Your task to perform on an android device: Open Chrome and go to settings Image 0: 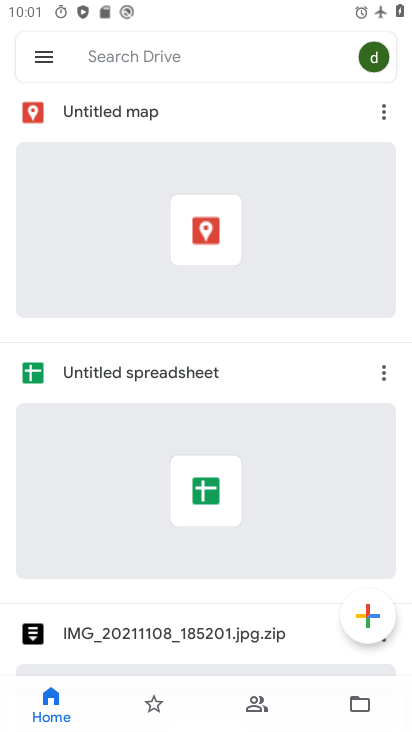
Step 0: press back button
Your task to perform on an android device: Open Chrome and go to settings Image 1: 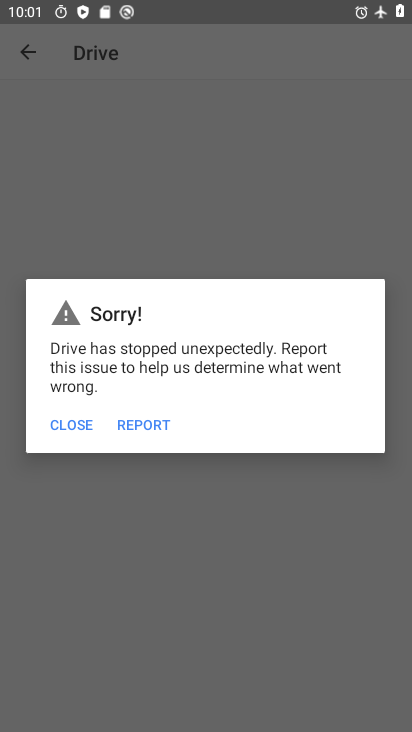
Step 1: press home button
Your task to perform on an android device: Open Chrome and go to settings Image 2: 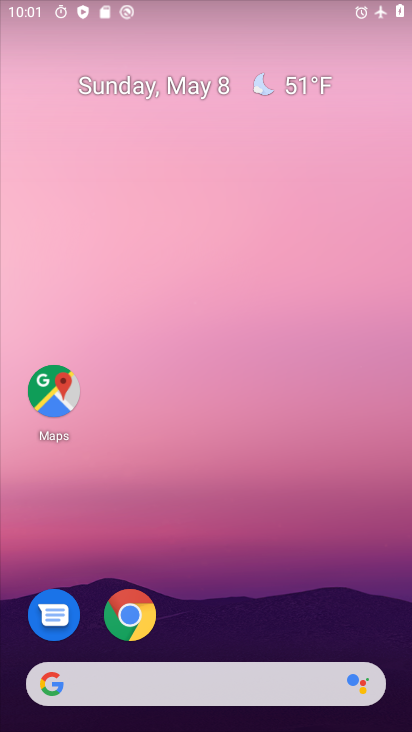
Step 2: click (142, 610)
Your task to perform on an android device: Open Chrome and go to settings Image 3: 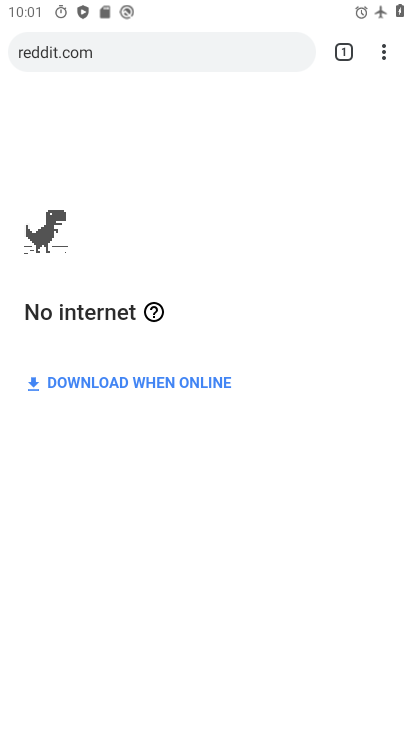
Step 3: click (377, 57)
Your task to perform on an android device: Open Chrome and go to settings Image 4: 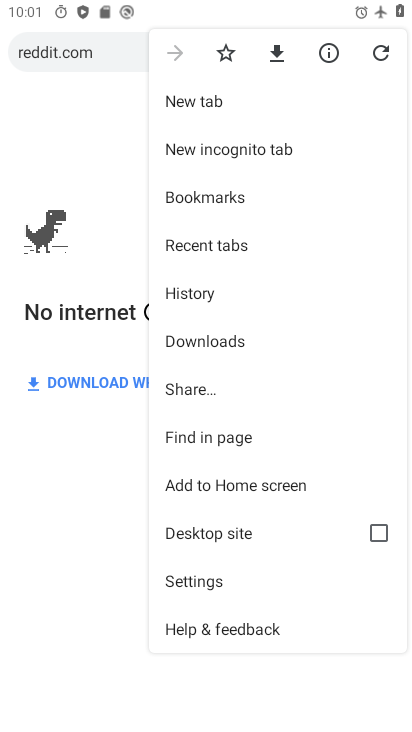
Step 4: click (235, 575)
Your task to perform on an android device: Open Chrome and go to settings Image 5: 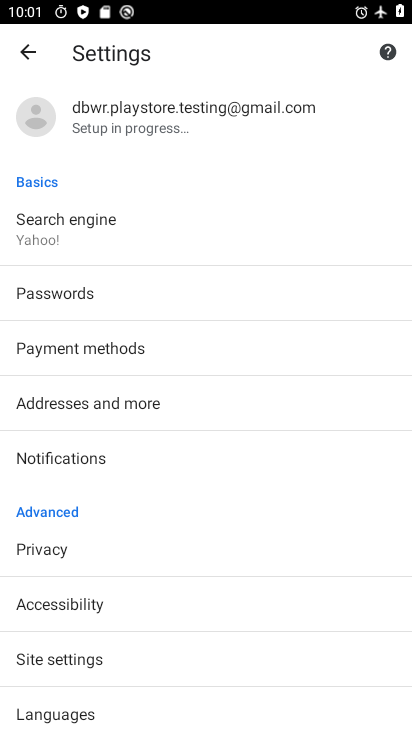
Step 5: task complete